Your task to perform on an android device: turn on airplane mode Image 0: 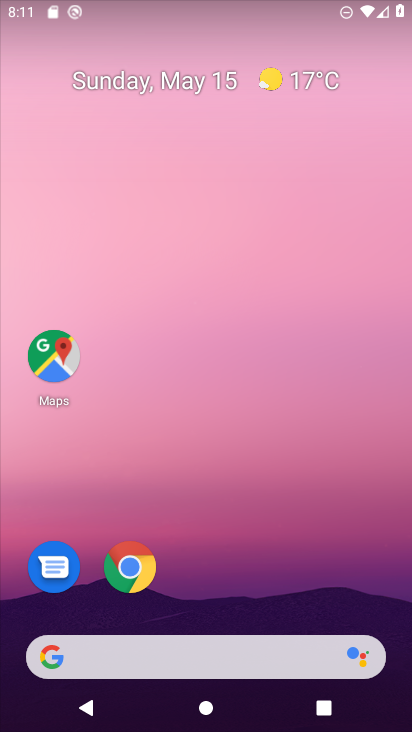
Step 0: drag from (169, 627) to (204, 10)
Your task to perform on an android device: turn on airplane mode Image 1: 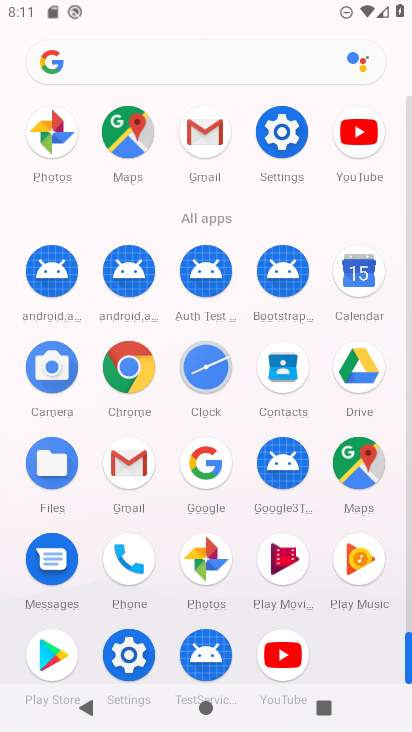
Step 1: click (142, 655)
Your task to perform on an android device: turn on airplane mode Image 2: 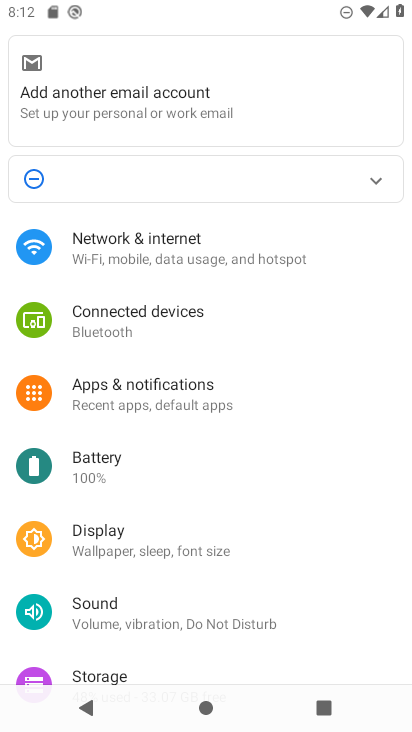
Step 2: click (200, 246)
Your task to perform on an android device: turn on airplane mode Image 3: 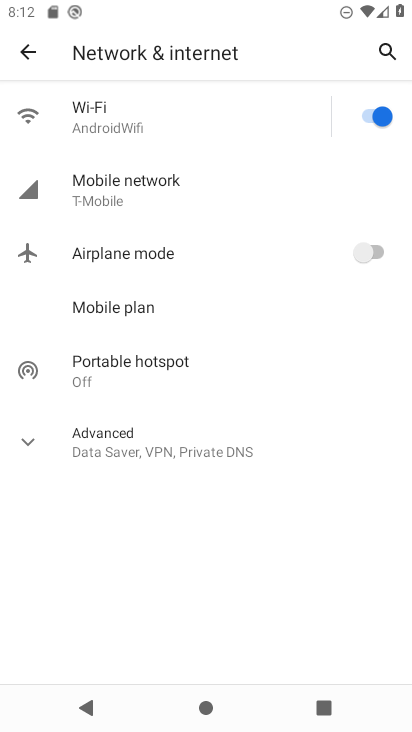
Step 3: click (369, 252)
Your task to perform on an android device: turn on airplane mode Image 4: 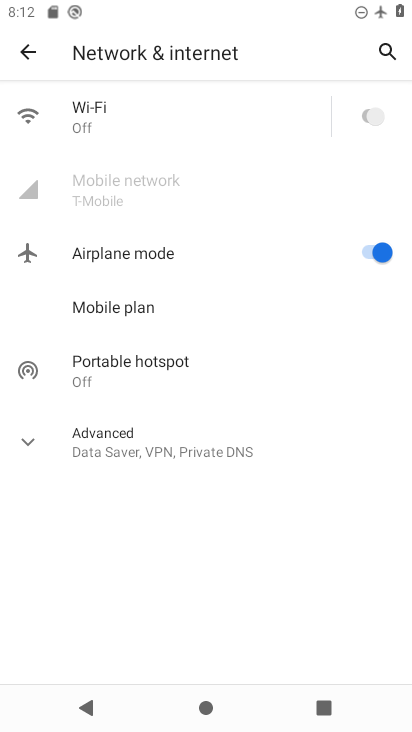
Step 4: task complete